Your task to perform on an android device: turn off data saver in the chrome app Image 0: 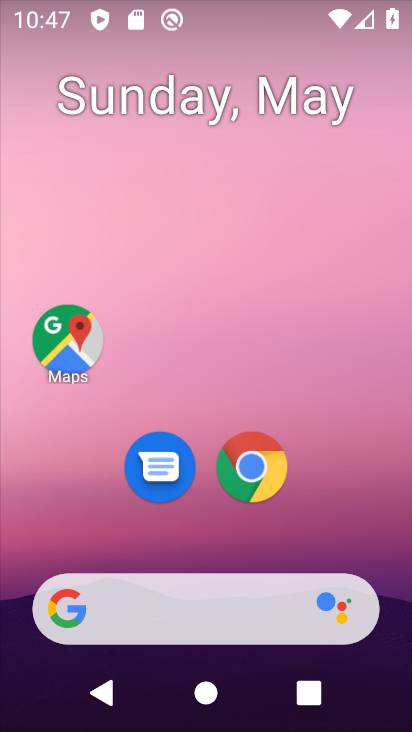
Step 0: click (249, 466)
Your task to perform on an android device: turn off data saver in the chrome app Image 1: 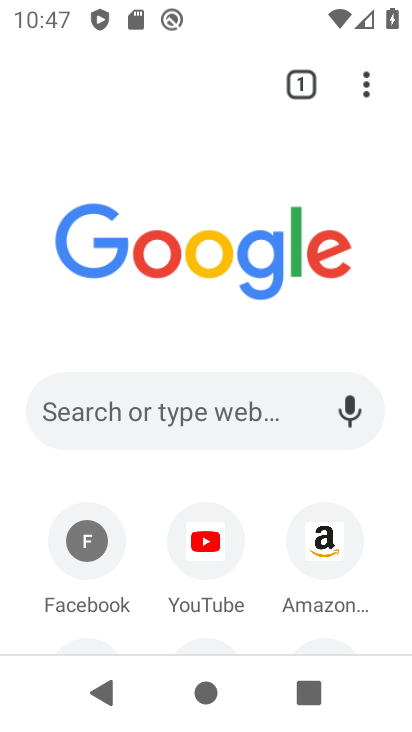
Step 1: click (365, 96)
Your task to perform on an android device: turn off data saver in the chrome app Image 2: 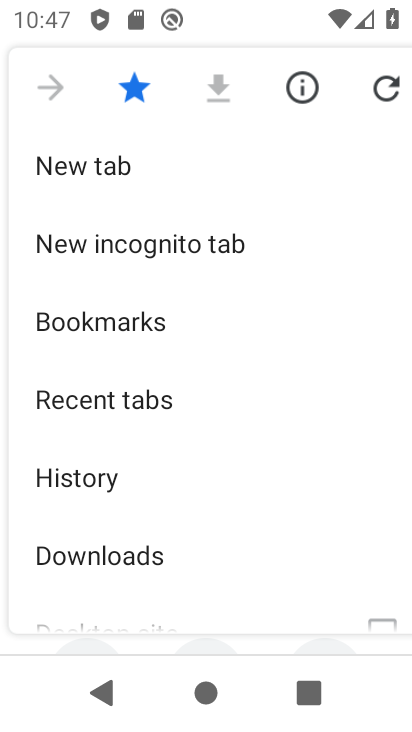
Step 2: drag from (199, 497) to (205, 102)
Your task to perform on an android device: turn off data saver in the chrome app Image 3: 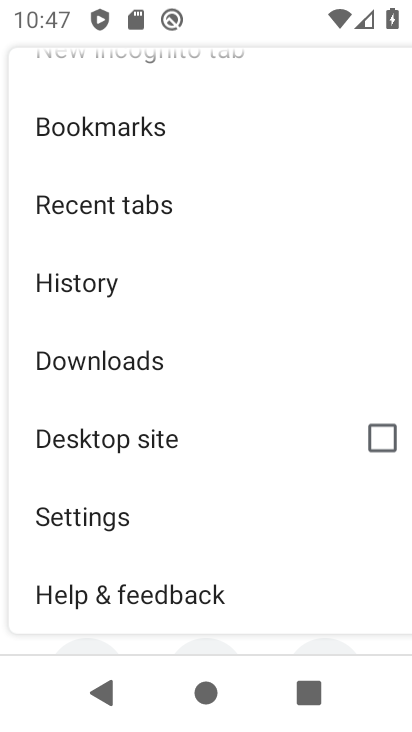
Step 3: click (90, 519)
Your task to perform on an android device: turn off data saver in the chrome app Image 4: 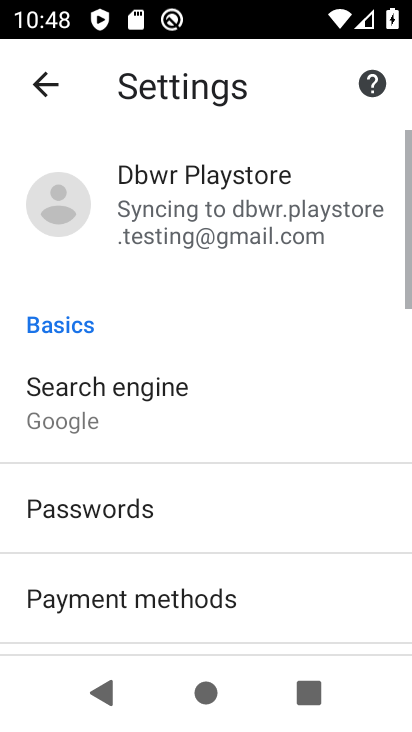
Step 4: drag from (231, 566) to (234, 64)
Your task to perform on an android device: turn off data saver in the chrome app Image 5: 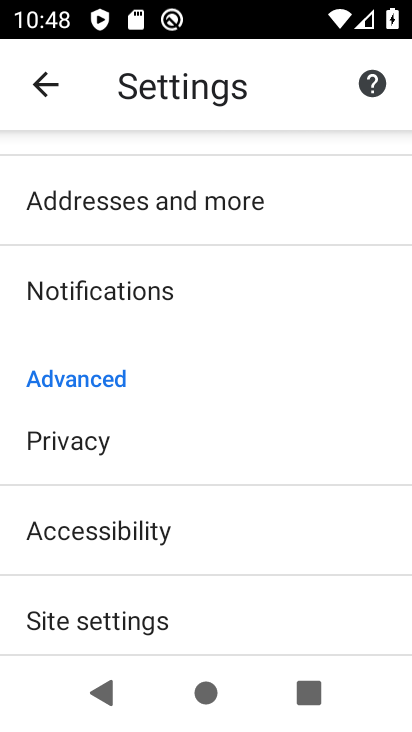
Step 5: drag from (190, 561) to (210, 155)
Your task to perform on an android device: turn off data saver in the chrome app Image 6: 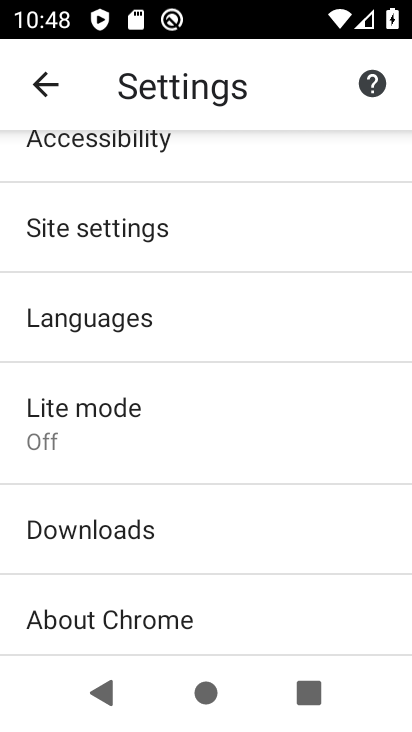
Step 6: click (52, 427)
Your task to perform on an android device: turn off data saver in the chrome app Image 7: 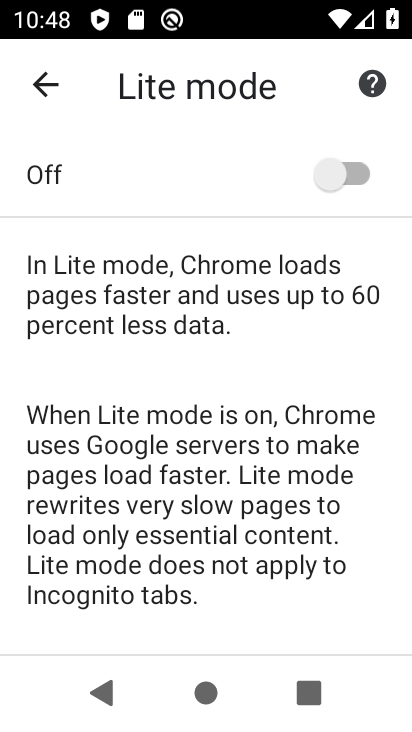
Step 7: task complete